Your task to perform on an android device: change timer sound Image 0: 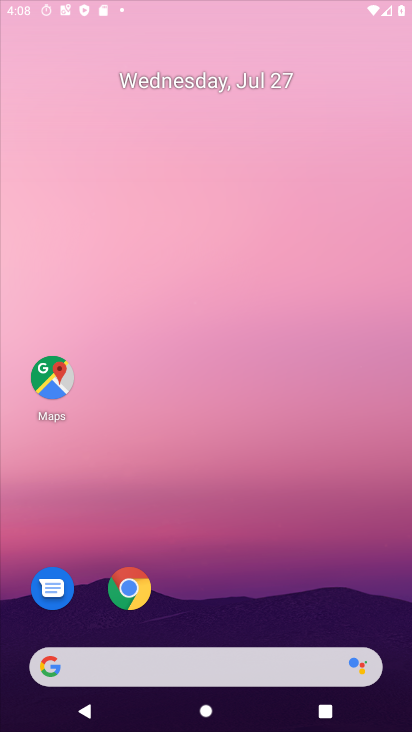
Step 0: press home button
Your task to perform on an android device: change timer sound Image 1: 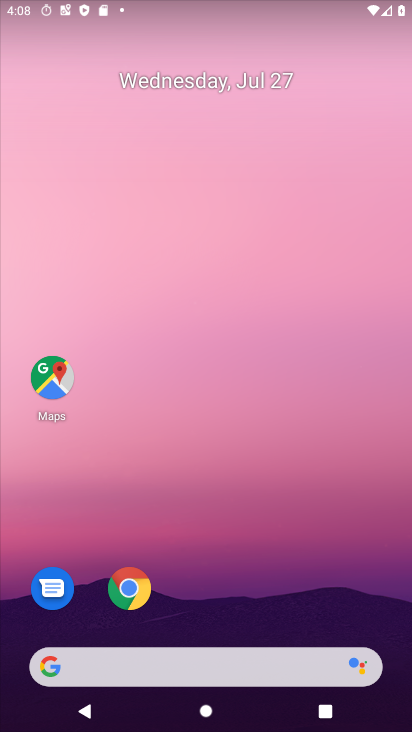
Step 1: drag from (254, 623) to (250, 350)
Your task to perform on an android device: change timer sound Image 2: 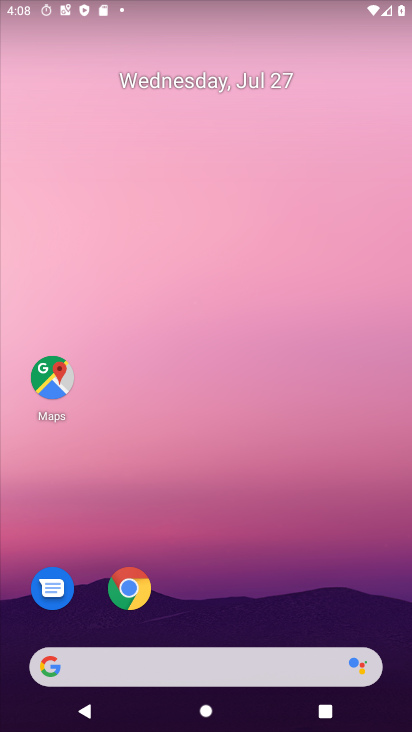
Step 2: drag from (254, 603) to (177, 28)
Your task to perform on an android device: change timer sound Image 3: 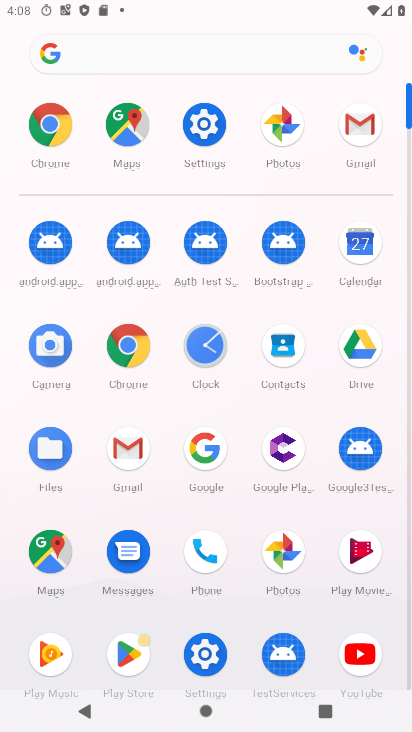
Step 3: click (202, 359)
Your task to perform on an android device: change timer sound Image 4: 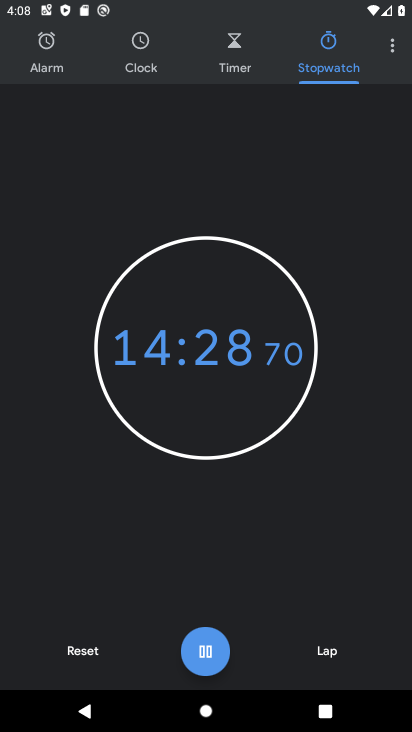
Step 4: click (387, 49)
Your task to perform on an android device: change timer sound Image 5: 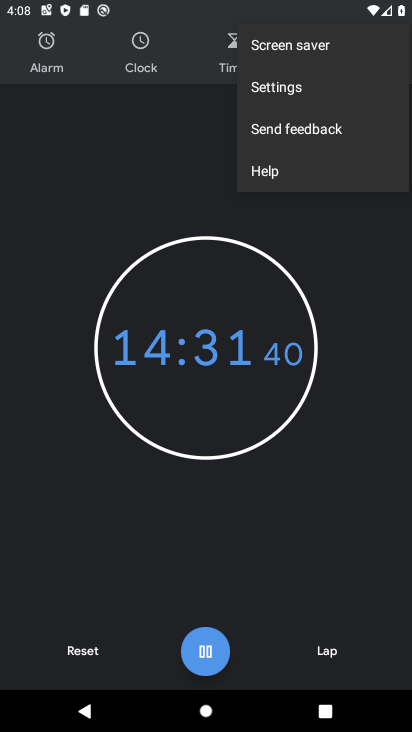
Step 5: click (284, 87)
Your task to perform on an android device: change timer sound Image 6: 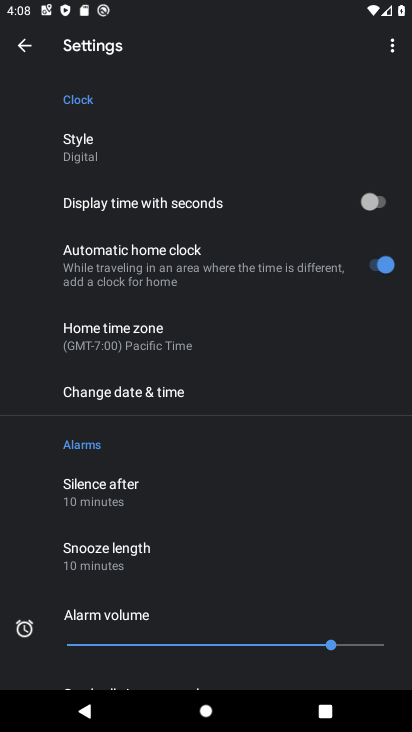
Step 6: drag from (285, 535) to (317, 111)
Your task to perform on an android device: change timer sound Image 7: 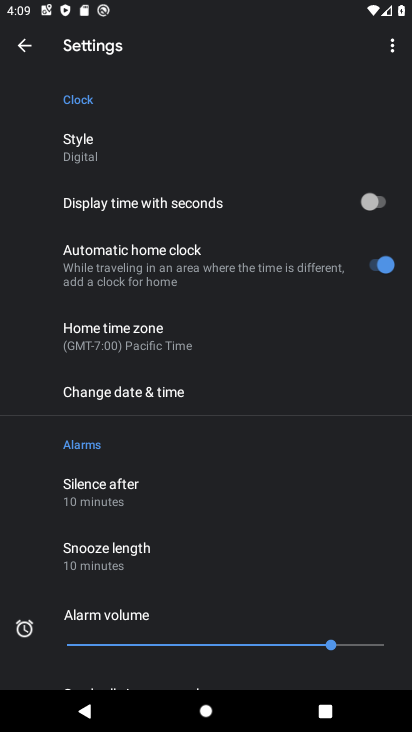
Step 7: drag from (327, 582) to (308, 434)
Your task to perform on an android device: change timer sound Image 8: 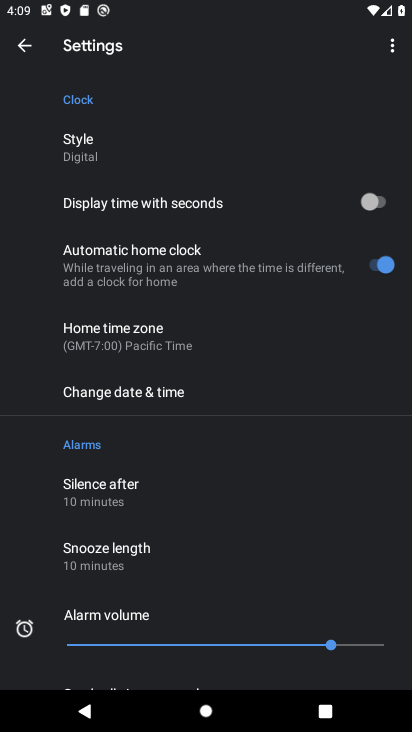
Step 8: drag from (321, 587) to (249, 21)
Your task to perform on an android device: change timer sound Image 9: 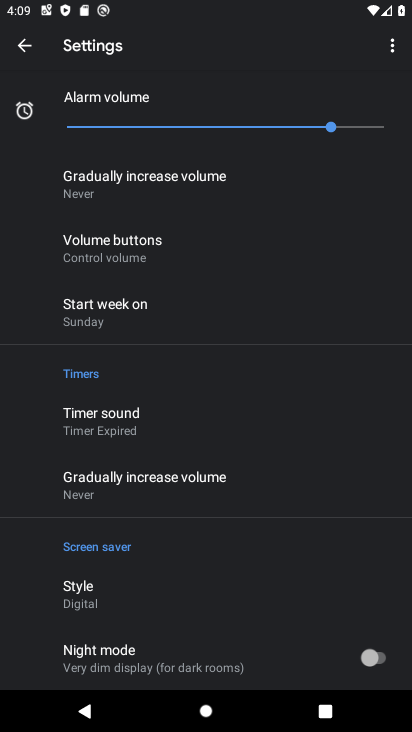
Step 9: click (95, 424)
Your task to perform on an android device: change timer sound Image 10: 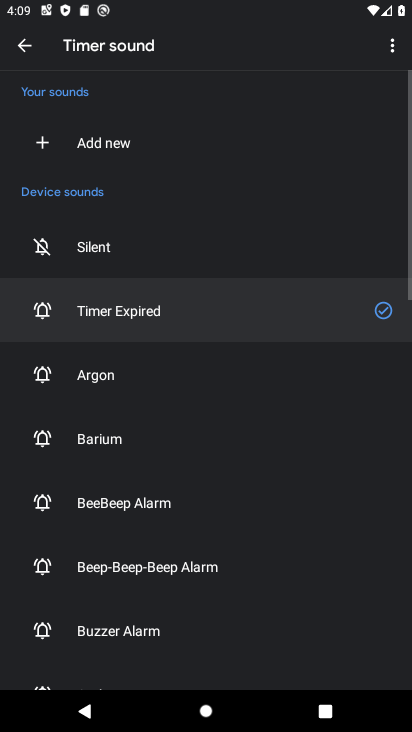
Step 10: click (73, 376)
Your task to perform on an android device: change timer sound Image 11: 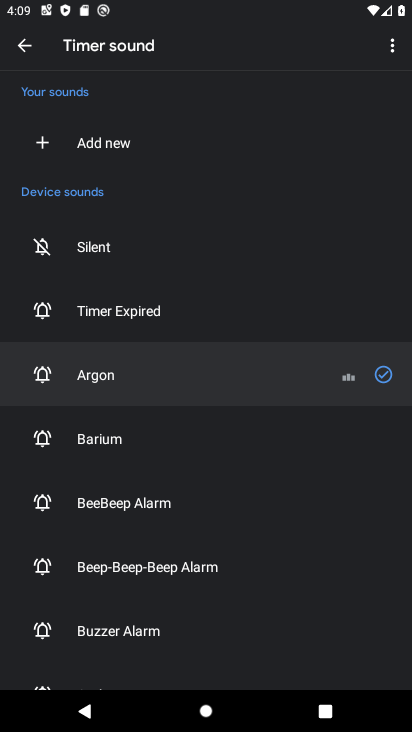
Step 11: task complete